Your task to perform on an android device: Show me popular games on the Play Store Image 0: 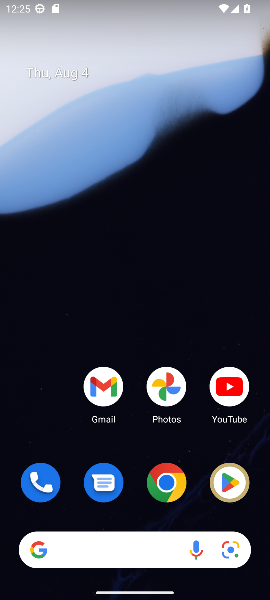
Step 0: click (228, 491)
Your task to perform on an android device: Show me popular games on the Play Store Image 1: 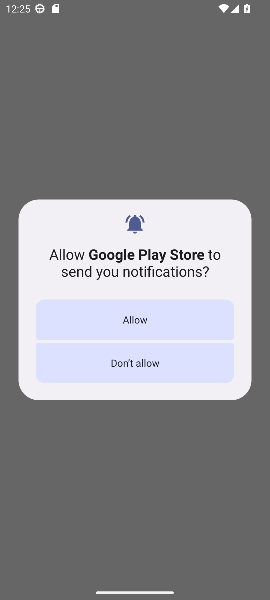
Step 1: click (167, 325)
Your task to perform on an android device: Show me popular games on the Play Store Image 2: 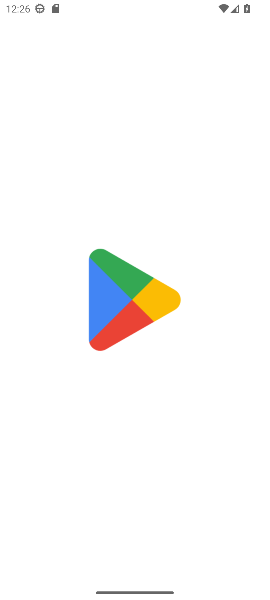
Step 2: press home button
Your task to perform on an android device: Show me popular games on the Play Store Image 3: 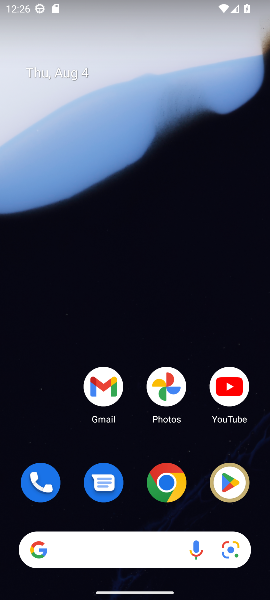
Step 3: click (232, 473)
Your task to perform on an android device: Show me popular games on the Play Store Image 4: 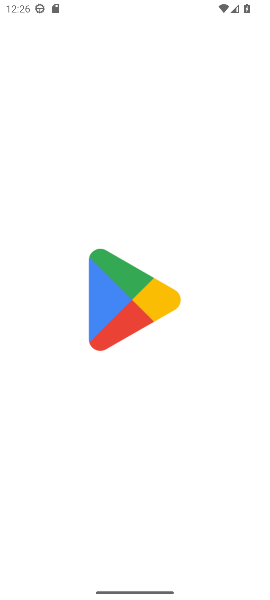
Step 4: click (128, 392)
Your task to perform on an android device: Show me popular games on the Play Store Image 5: 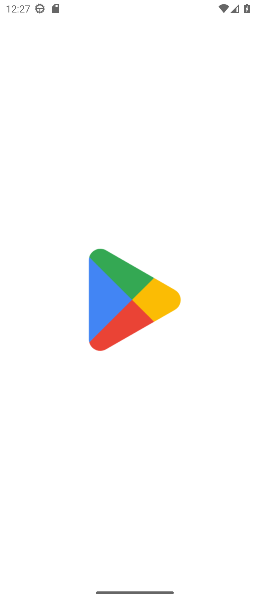
Step 5: click (106, 373)
Your task to perform on an android device: Show me popular games on the Play Store Image 6: 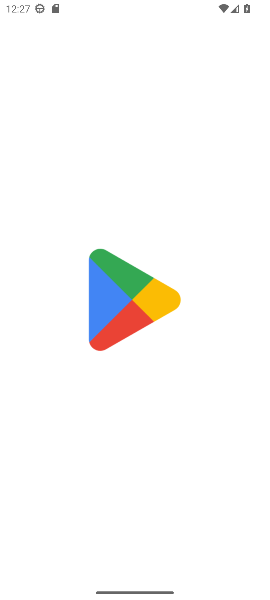
Step 6: click (106, 373)
Your task to perform on an android device: Show me popular games on the Play Store Image 7: 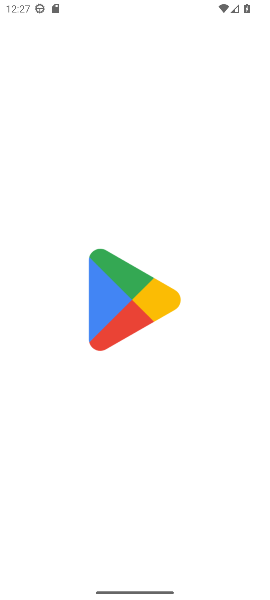
Step 7: task complete